Your task to perform on an android device: Open calendar and show me the first week of next month Image 0: 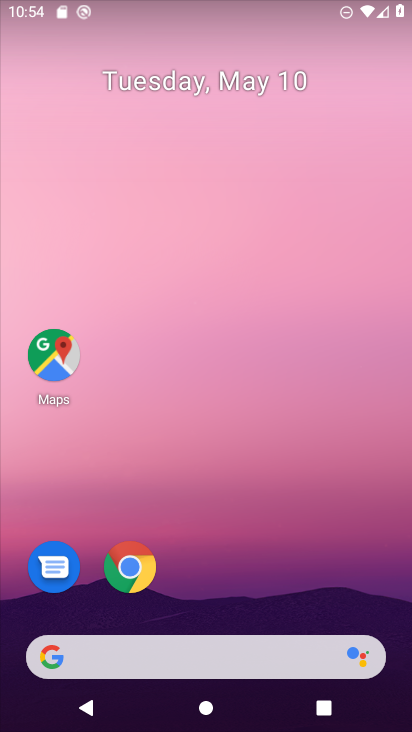
Step 0: click (266, 151)
Your task to perform on an android device: Open calendar and show me the first week of next month Image 1: 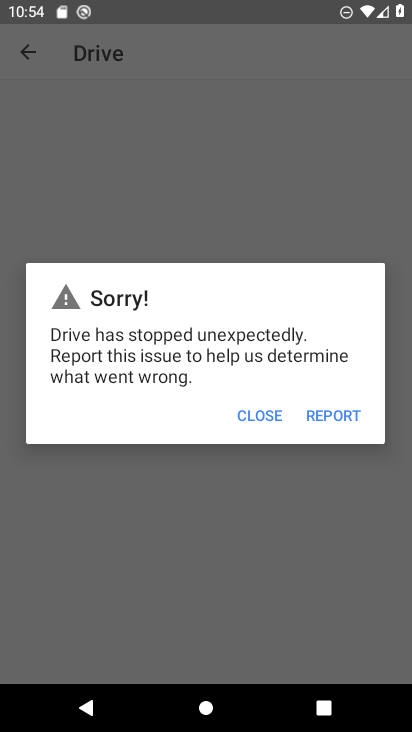
Step 1: press home button
Your task to perform on an android device: Open calendar and show me the first week of next month Image 2: 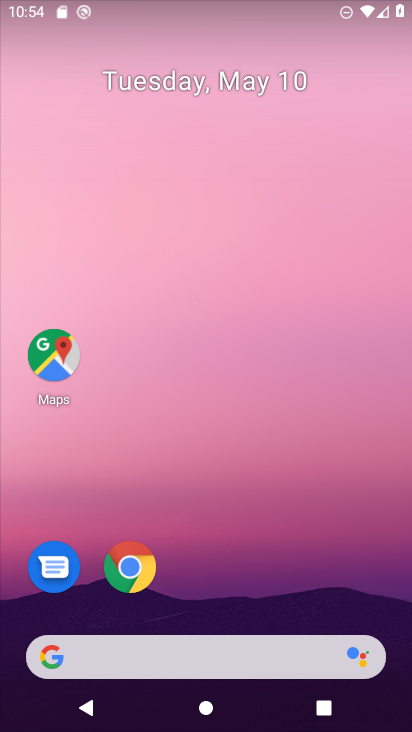
Step 2: drag from (242, 469) to (223, 80)
Your task to perform on an android device: Open calendar and show me the first week of next month Image 3: 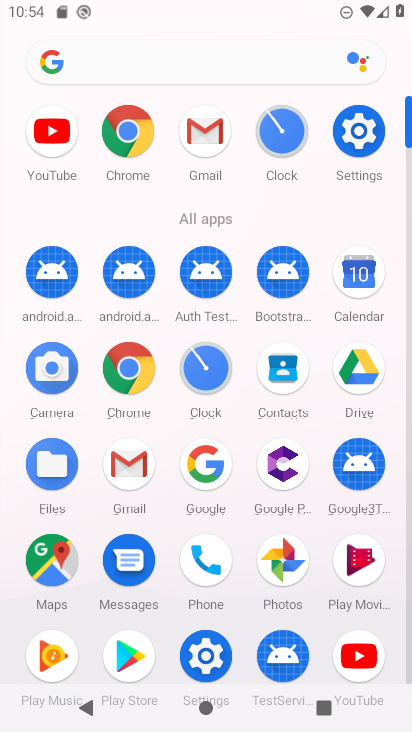
Step 3: click (354, 278)
Your task to perform on an android device: Open calendar and show me the first week of next month Image 4: 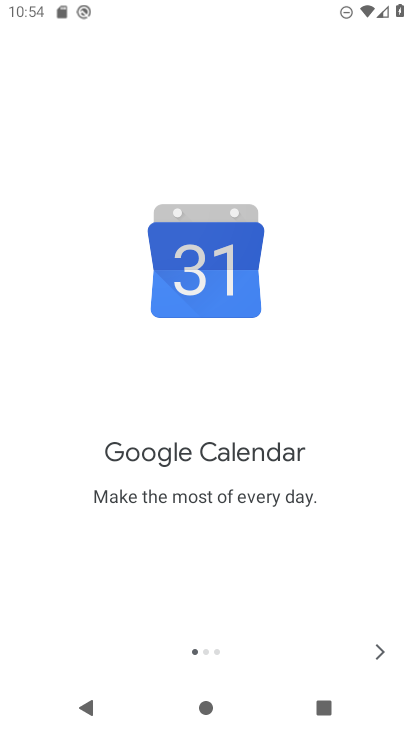
Step 4: click (364, 647)
Your task to perform on an android device: Open calendar and show me the first week of next month Image 5: 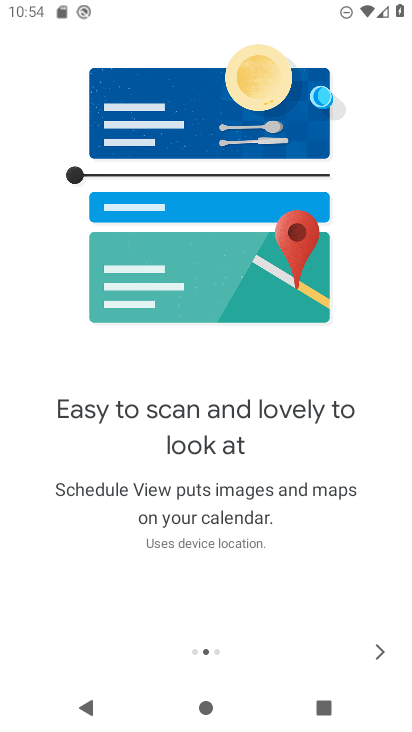
Step 5: click (364, 647)
Your task to perform on an android device: Open calendar and show me the first week of next month Image 6: 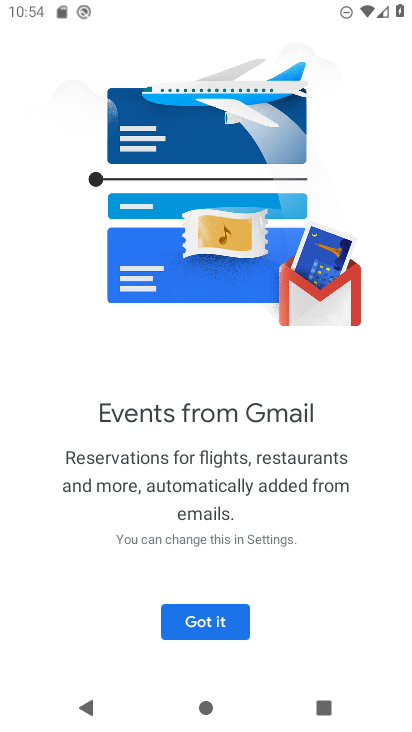
Step 6: click (190, 614)
Your task to perform on an android device: Open calendar and show me the first week of next month Image 7: 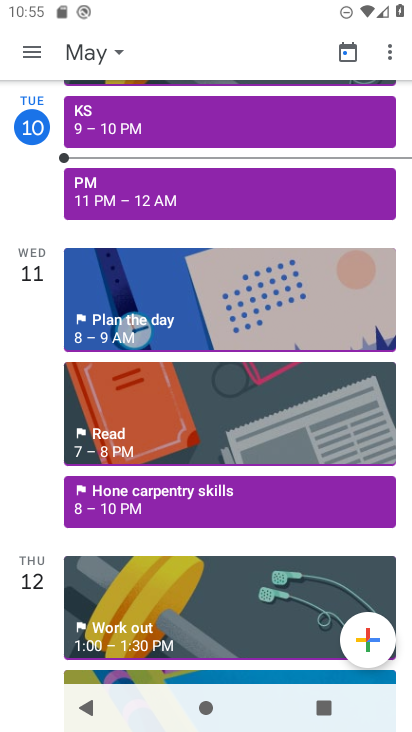
Step 7: click (84, 50)
Your task to perform on an android device: Open calendar and show me the first week of next month Image 8: 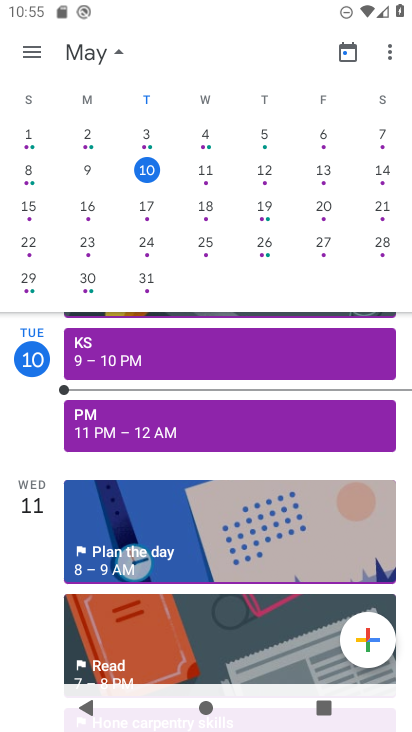
Step 8: drag from (331, 226) to (18, 250)
Your task to perform on an android device: Open calendar and show me the first week of next month Image 9: 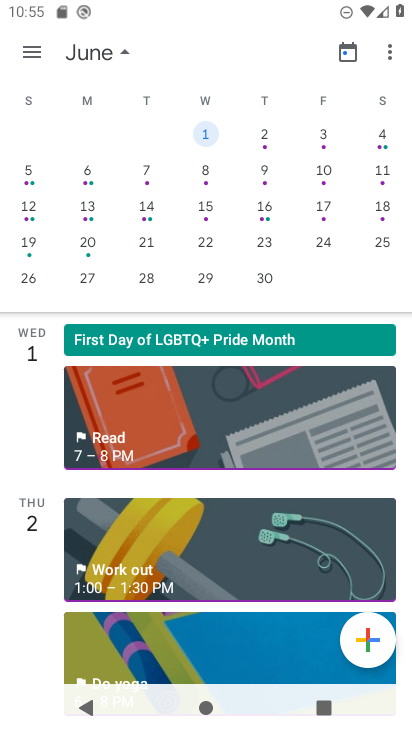
Step 9: click (266, 146)
Your task to perform on an android device: Open calendar and show me the first week of next month Image 10: 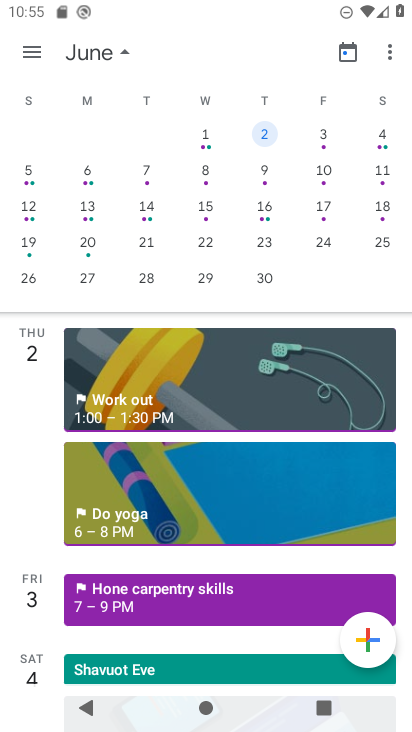
Step 10: click (327, 147)
Your task to perform on an android device: Open calendar and show me the first week of next month Image 11: 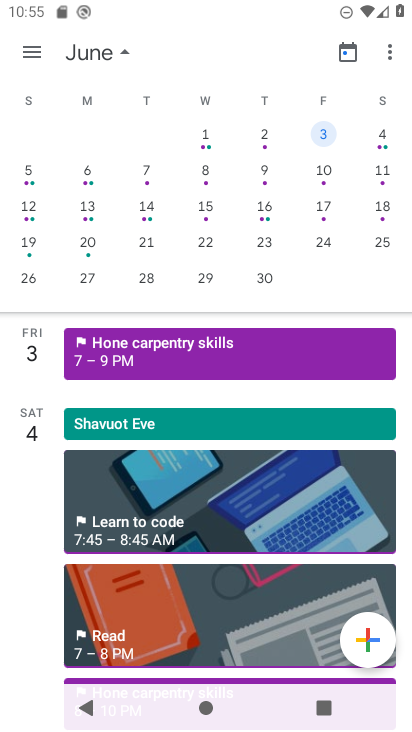
Step 11: click (377, 147)
Your task to perform on an android device: Open calendar and show me the first week of next month Image 12: 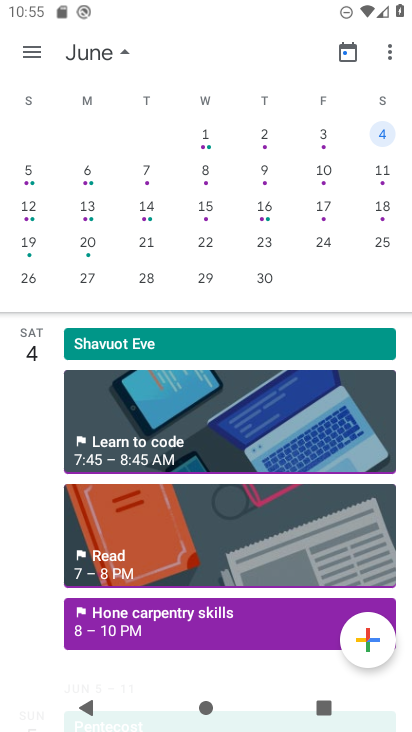
Step 12: task complete